Your task to perform on an android device: Open calendar and show me the first week of next month Image 0: 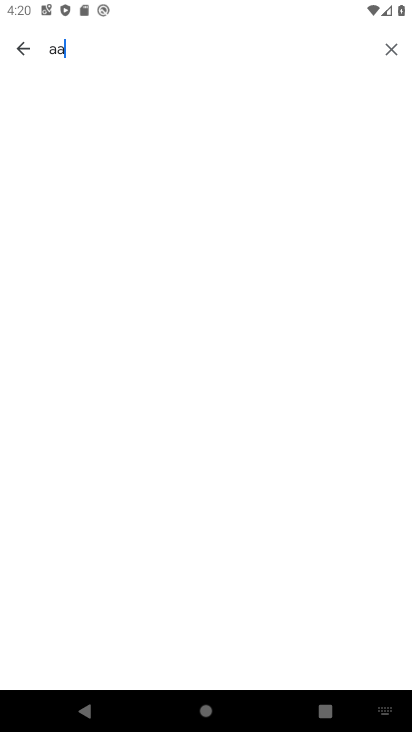
Step 0: press home button
Your task to perform on an android device: Open calendar and show me the first week of next month Image 1: 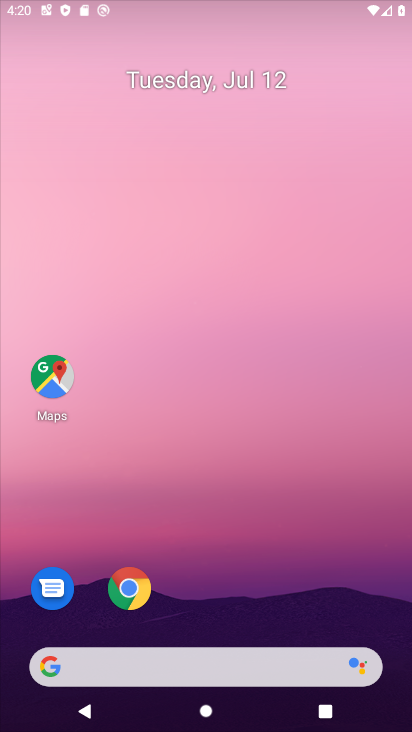
Step 1: click (265, 277)
Your task to perform on an android device: Open calendar and show me the first week of next month Image 2: 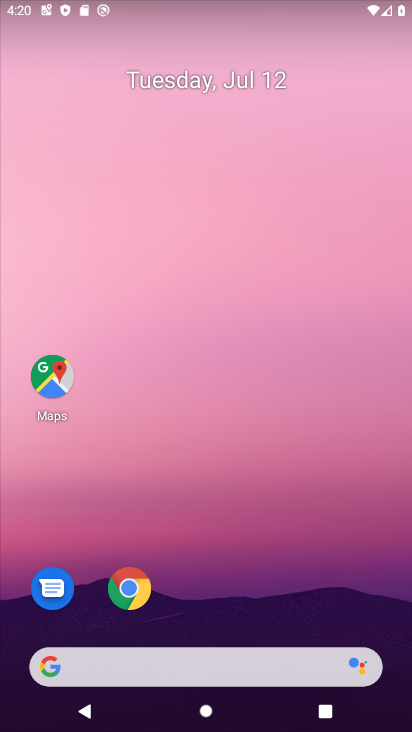
Step 2: drag from (237, 622) to (219, 191)
Your task to perform on an android device: Open calendar and show me the first week of next month Image 3: 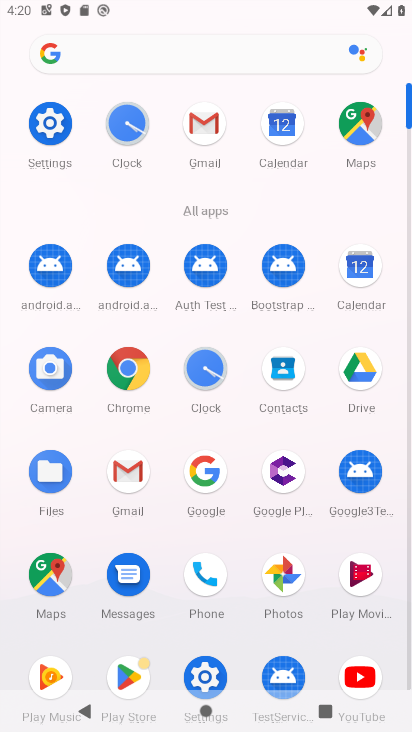
Step 3: click (371, 271)
Your task to perform on an android device: Open calendar and show me the first week of next month Image 4: 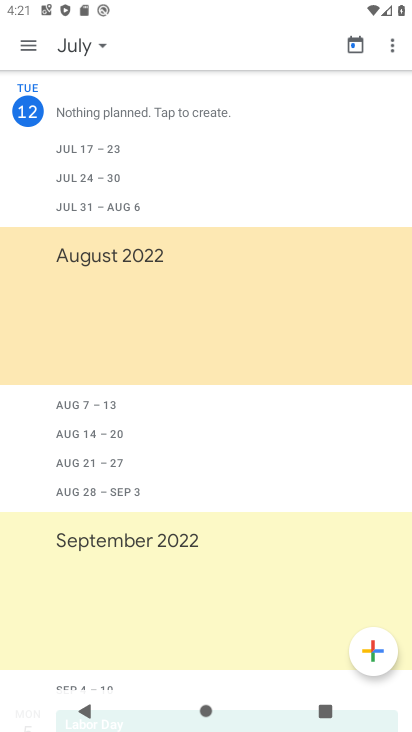
Step 4: click (109, 46)
Your task to perform on an android device: Open calendar and show me the first week of next month Image 5: 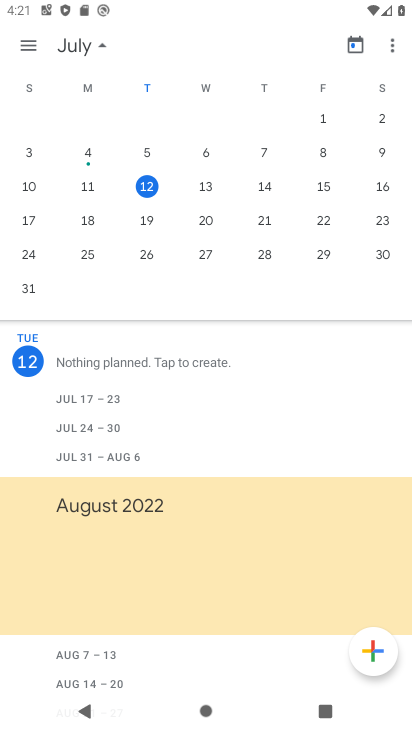
Step 5: drag from (344, 164) to (6, 162)
Your task to perform on an android device: Open calendar and show me the first week of next month Image 6: 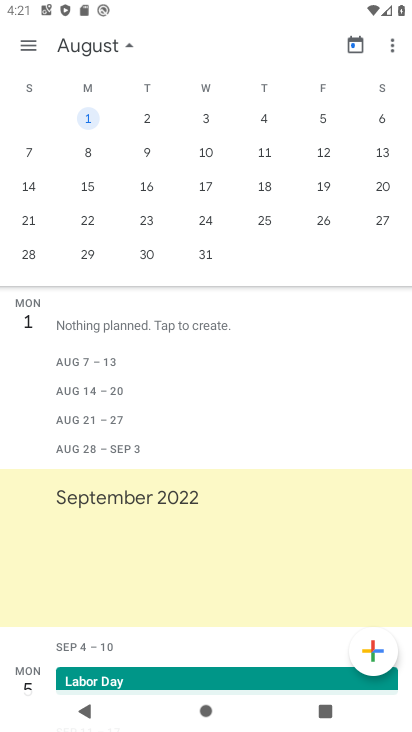
Step 6: click (81, 111)
Your task to perform on an android device: Open calendar and show me the first week of next month Image 7: 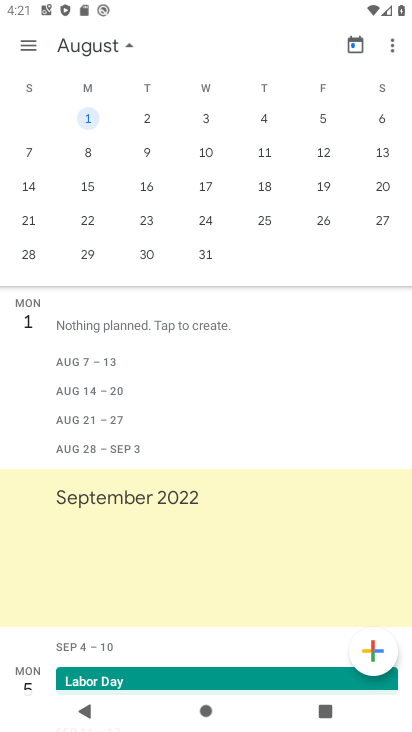
Step 7: click (100, 122)
Your task to perform on an android device: Open calendar and show me the first week of next month Image 8: 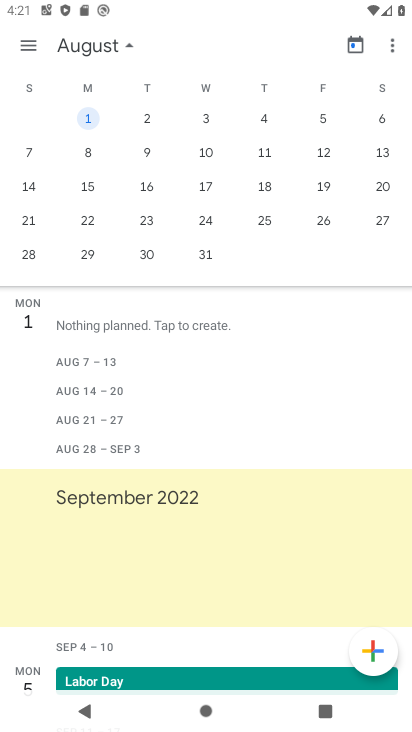
Step 8: task complete